Your task to perform on an android device: empty trash in google photos Image 0: 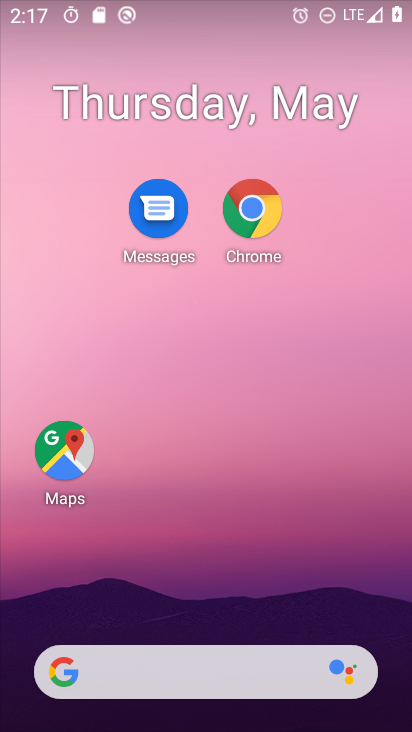
Step 0: drag from (184, 617) to (199, 100)
Your task to perform on an android device: empty trash in google photos Image 1: 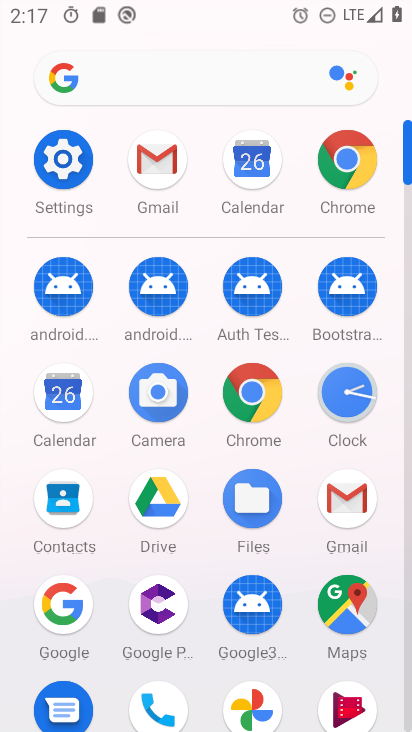
Step 1: click (286, 731)
Your task to perform on an android device: empty trash in google photos Image 2: 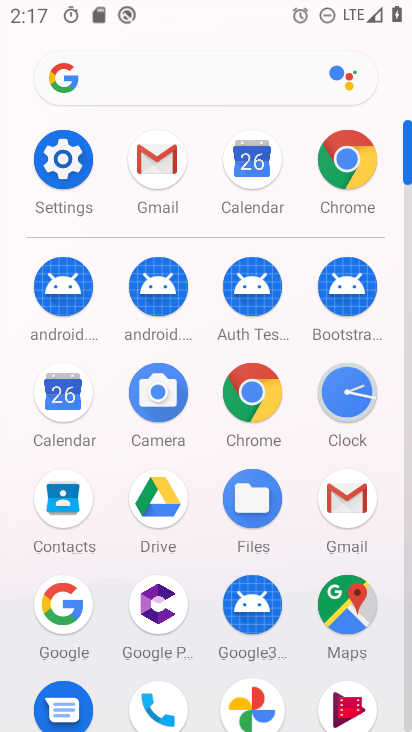
Step 2: click (255, 706)
Your task to perform on an android device: empty trash in google photos Image 3: 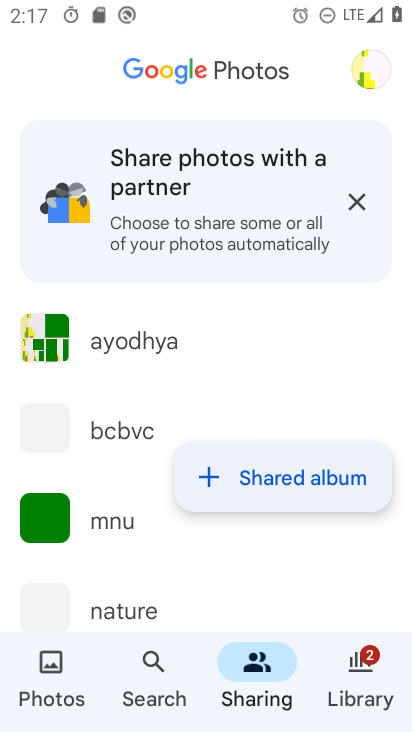
Step 3: click (367, 666)
Your task to perform on an android device: empty trash in google photos Image 4: 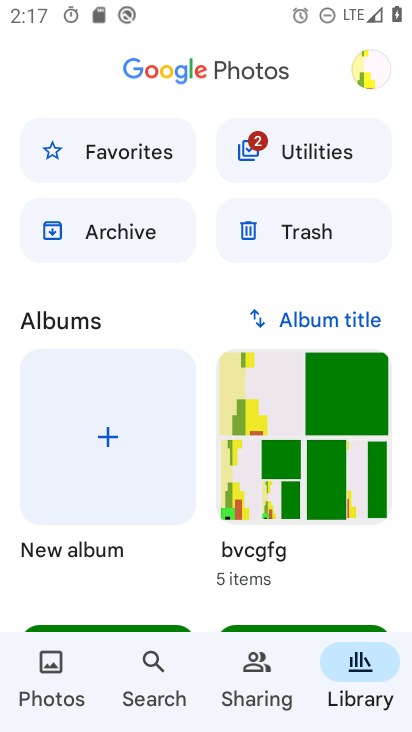
Step 4: click (371, 697)
Your task to perform on an android device: empty trash in google photos Image 5: 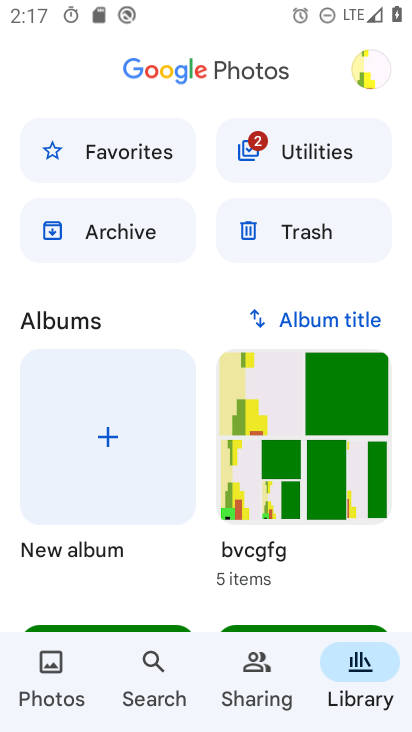
Step 5: click (288, 228)
Your task to perform on an android device: empty trash in google photos Image 6: 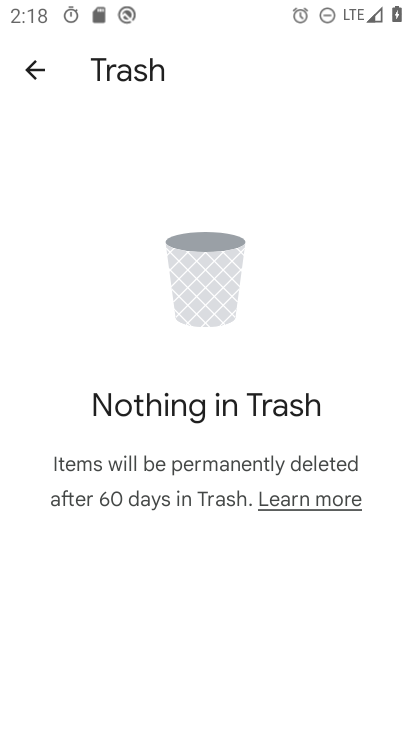
Step 6: task complete